Your task to perform on an android device: toggle wifi Image 0: 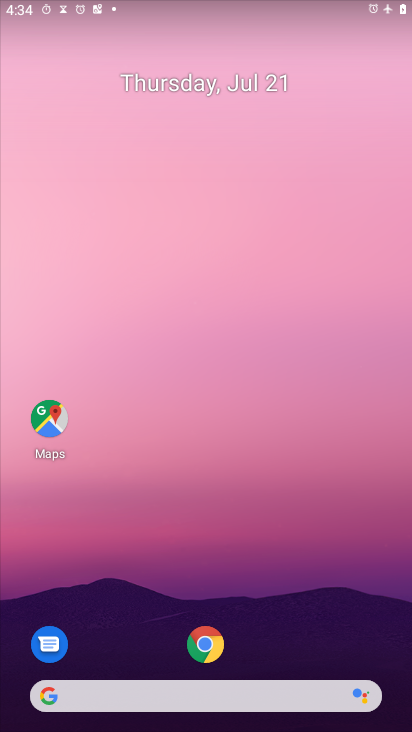
Step 0: press home button
Your task to perform on an android device: toggle wifi Image 1: 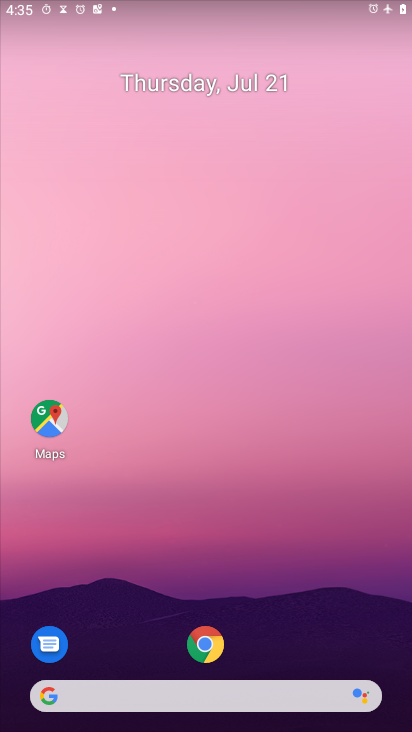
Step 1: drag from (211, 17) to (266, 621)
Your task to perform on an android device: toggle wifi Image 2: 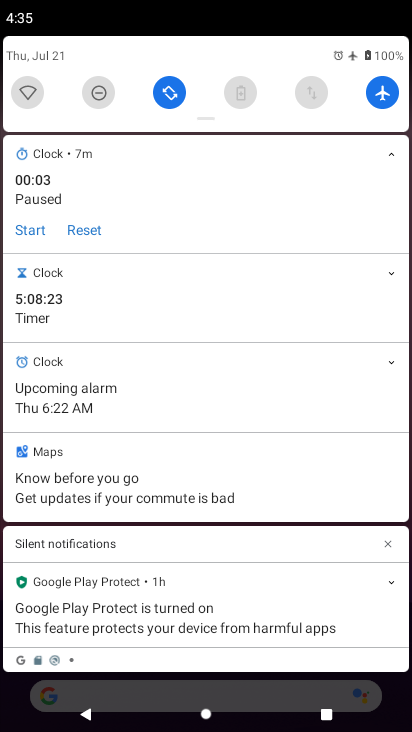
Step 2: click (22, 98)
Your task to perform on an android device: toggle wifi Image 3: 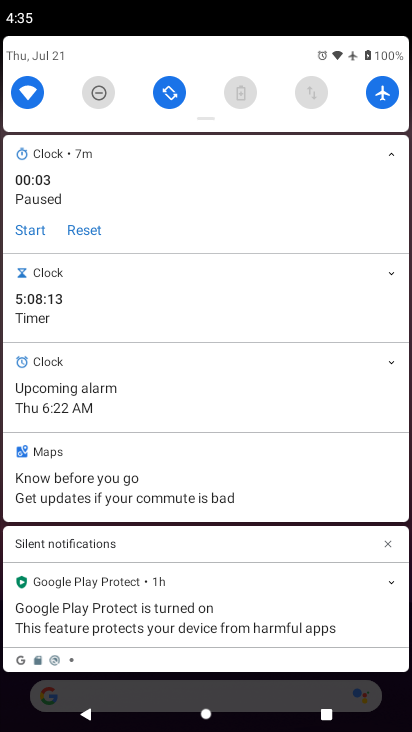
Step 3: task complete